Your task to perform on an android device: turn off priority inbox in the gmail app Image 0: 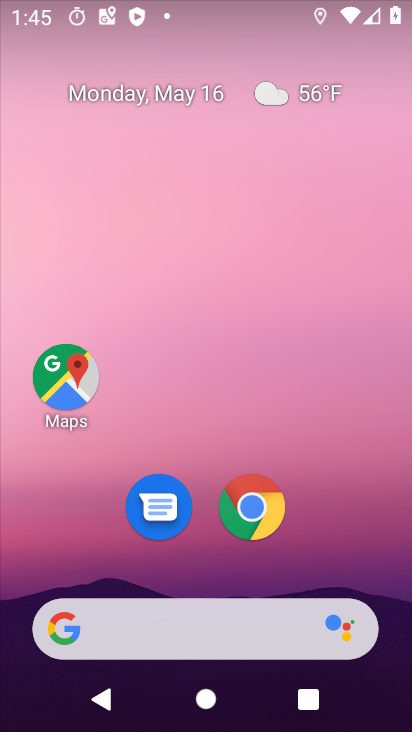
Step 0: drag from (229, 462) to (243, 27)
Your task to perform on an android device: turn off priority inbox in the gmail app Image 1: 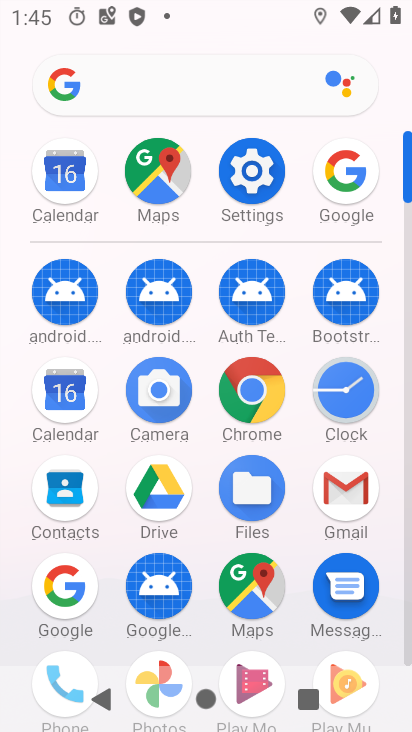
Step 1: click (358, 486)
Your task to perform on an android device: turn off priority inbox in the gmail app Image 2: 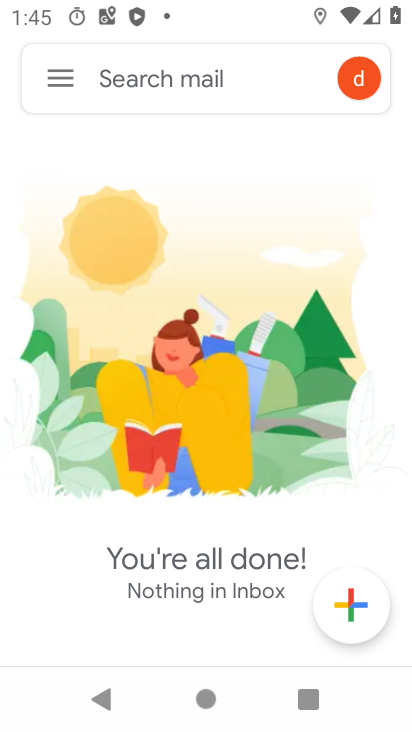
Step 2: click (57, 80)
Your task to perform on an android device: turn off priority inbox in the gmail app Image 3: 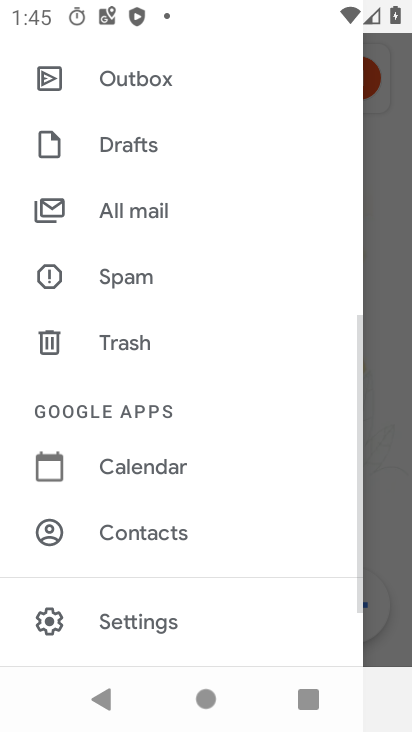
Step 3: click (157, 616)
Your task to perform on an android device: turn off priority inbox in the gmail app Image 4: 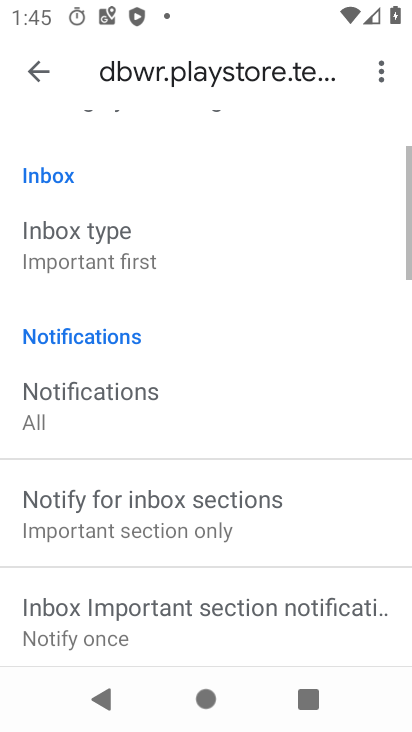
Step 4: task complete